Your task to perform on an android device: turn on location history Image 0: 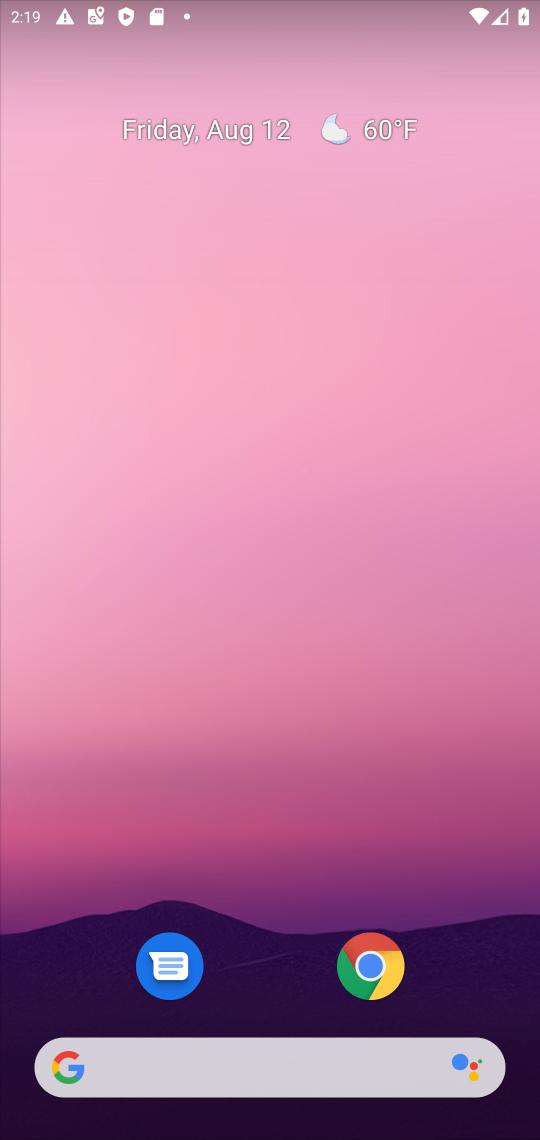
Step 0: drag from (292, 576) to (302, 162)
Your task to perform on an android device: turn on location history Image 1: 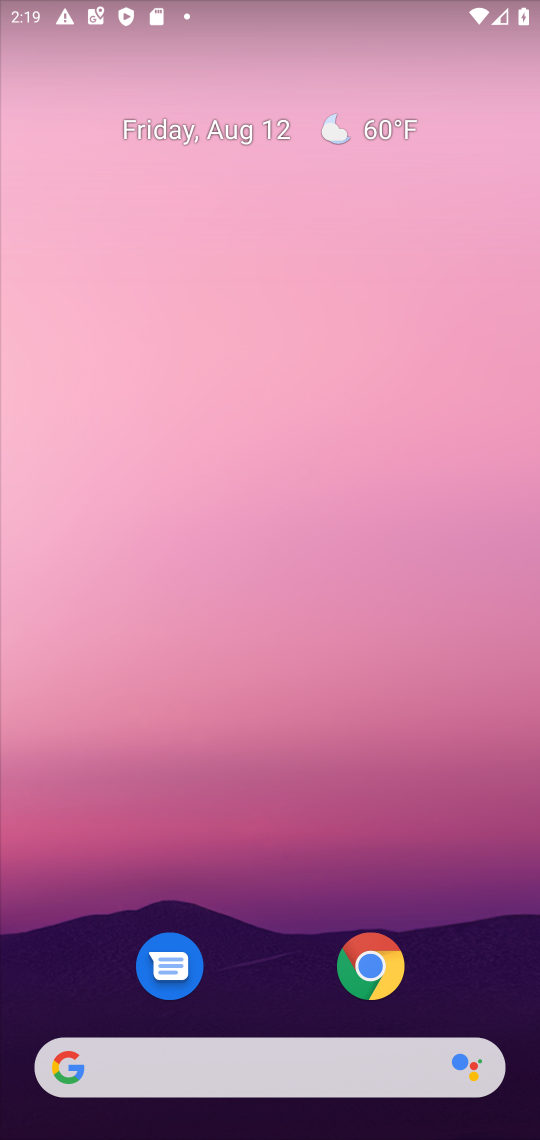
Step 1: drag from (304, 907) to (365, 49)
Your task to perform on an android device: turn on location history Image 2: 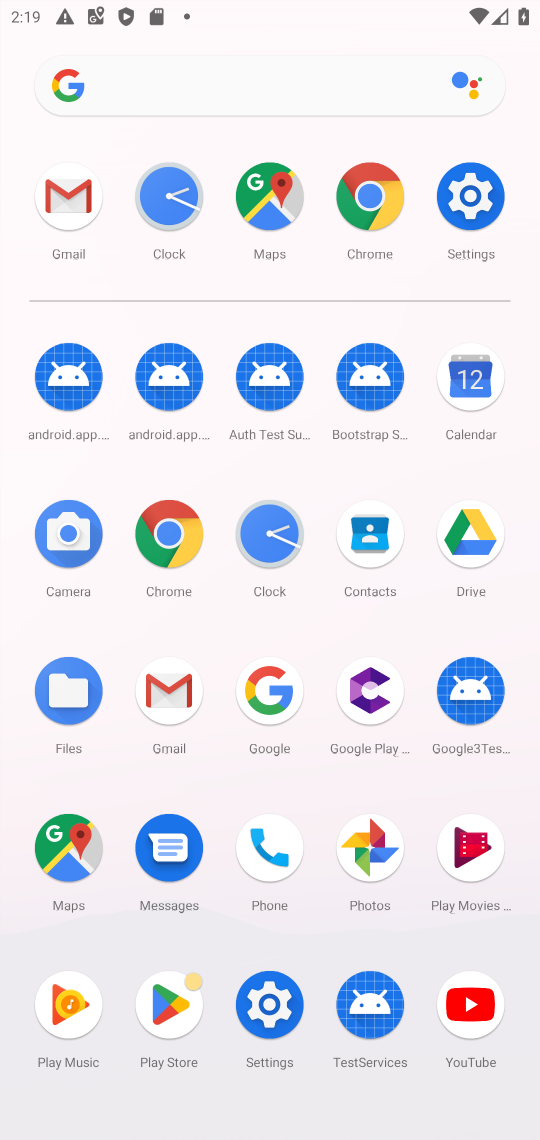
Step 2: click (481, 190)
Your task to perform on an android device: turn on location history Image 3: 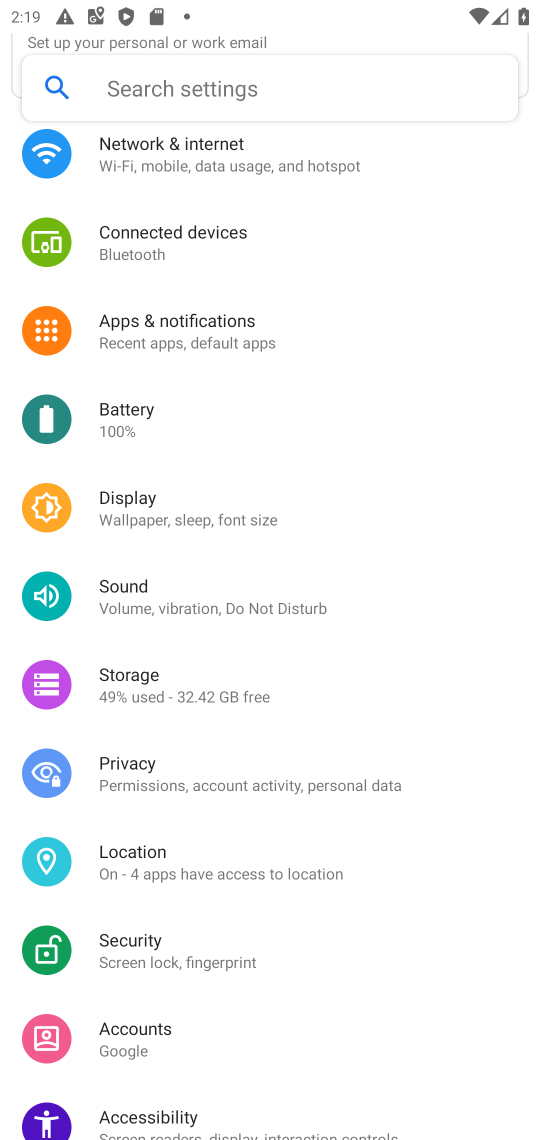
Step 3: click (159, 859)
Your task to perform on an android device: turn on location history Image 4: 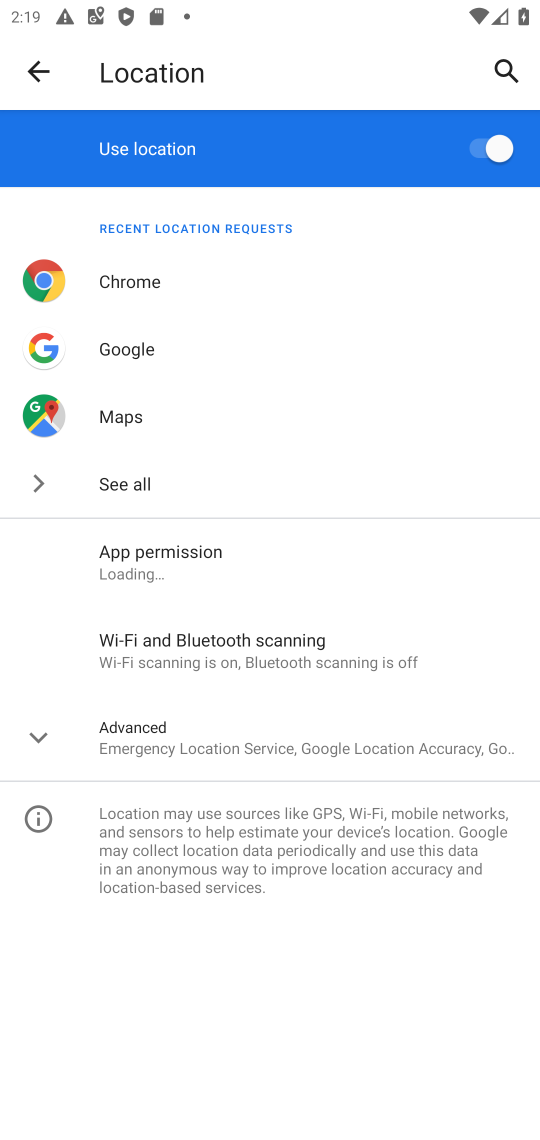
Step 4: click (158, 725)
Your task to perform on an android device: turn on location history Image 5: 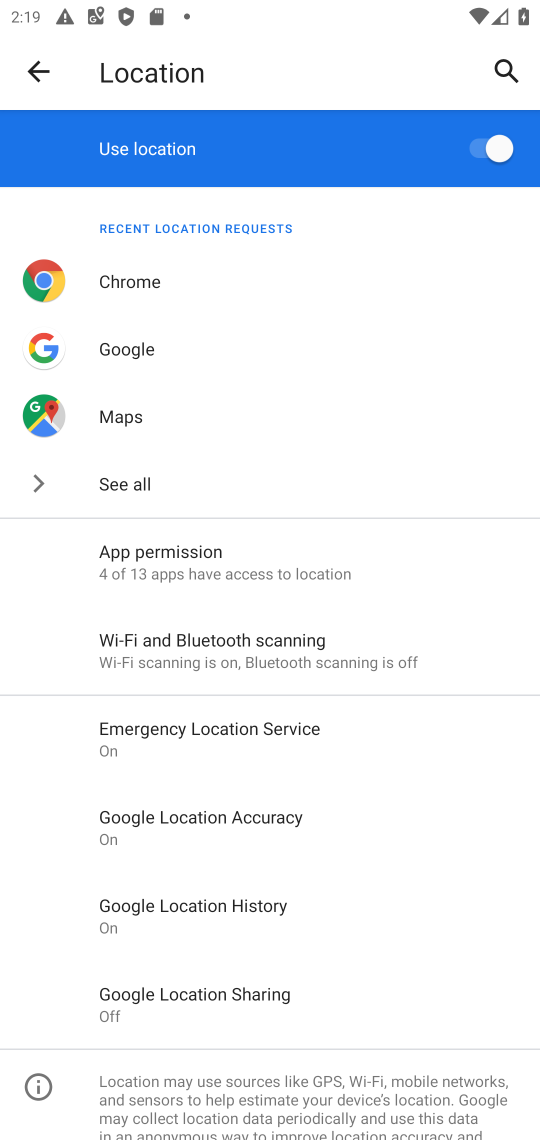
Step 5: click (223, 914)
Your task to perform on an android device: turn on location history Image 6: 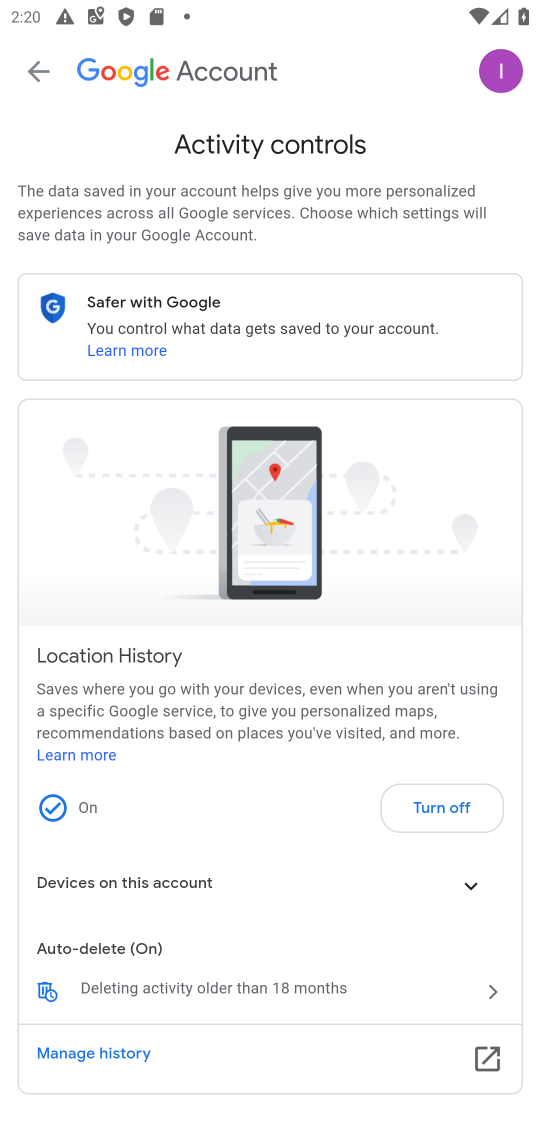
Step 6: task complete